Your task to perform on an android device: Go to accessibility settings Image 0: 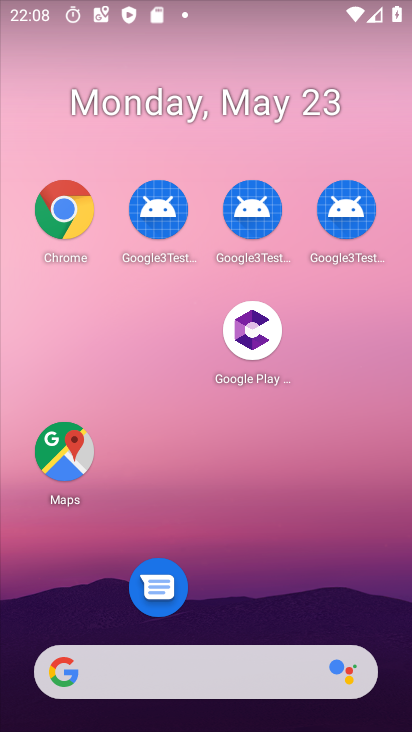
Step 0: drag from (271, 582) to (355, 106)
Your task to perform on an android device: Go to accessibility settings Image 1: 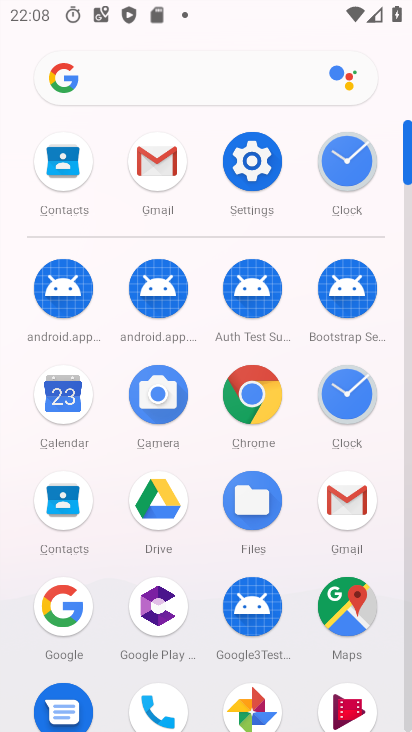
Step 1: click (239, 177)
Your task to perform on an android device: Go to accessibility settings Image 2: 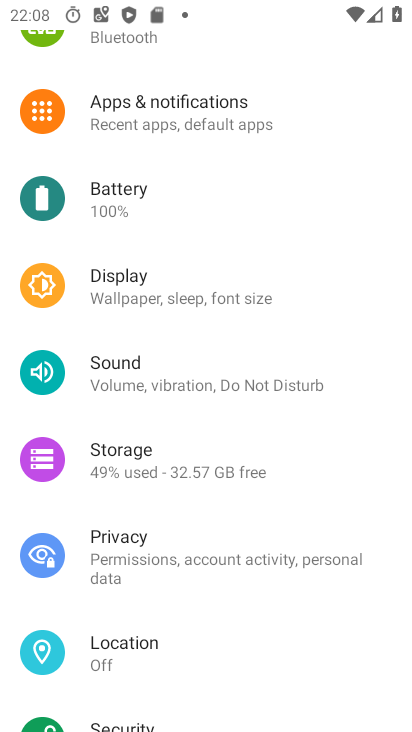
Step 2: drag from (246, 598) to (291, 123)
Your task to perform on an android device: Go to accessibility settings Image 3: 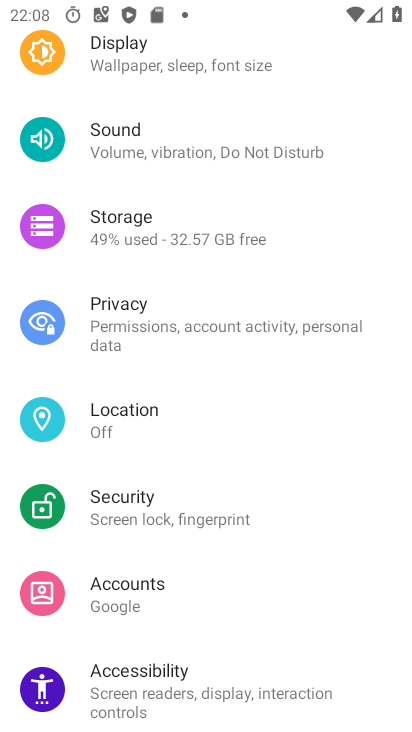
Step 3: click (214, 687)
Your task to perform on an android device: Go to accessibility settings Image 4: 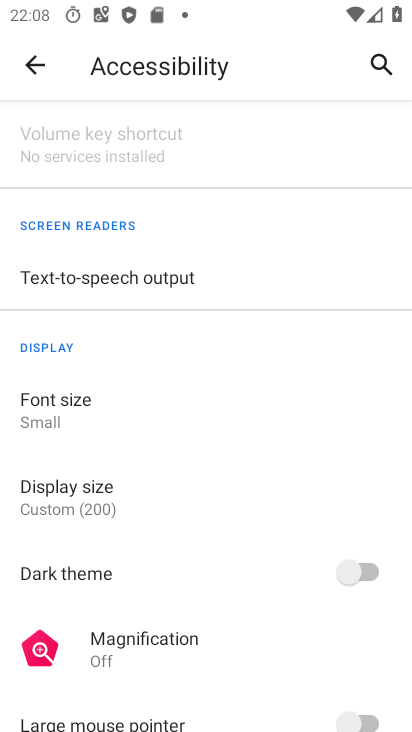
Step 4: task complete